Your task to perform on an android device: Go to Google Image 0: 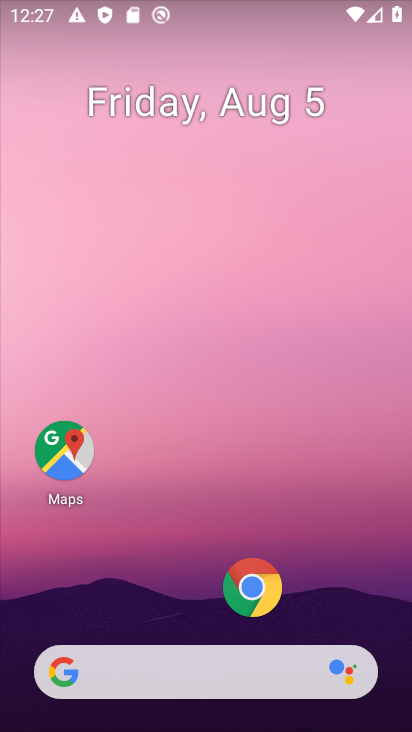
Step 0: drag from (203, 699) to (217, 114)
Your task to perform on an android device: Go to Google Image 1: 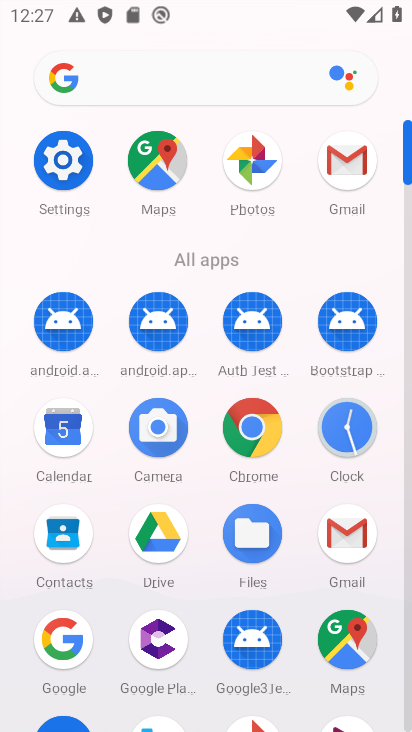
Step 1: click (74, 628)
Your task to perform on an android device: Go to Google Image 2: 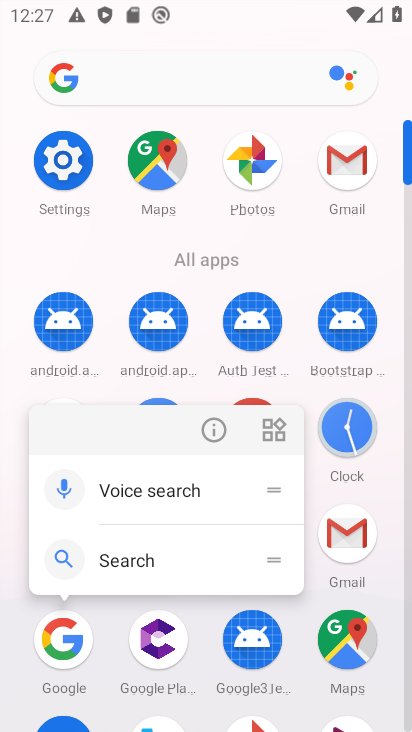
Step 2: click (72, 640)
Your task to perform on an android device: Go to Google Image 3: 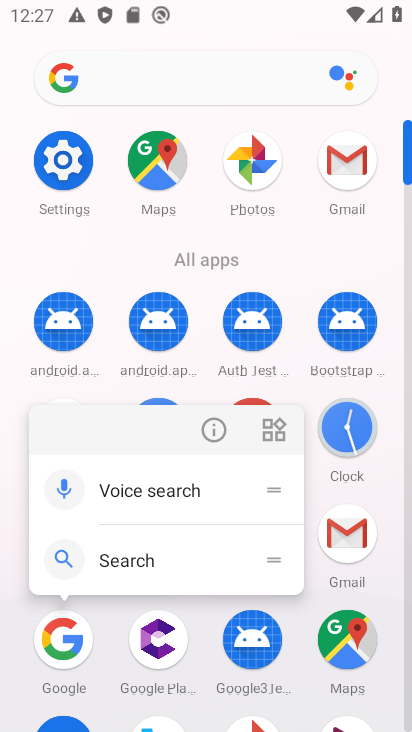
Step 3: click (72, 640)
Your task to perform on an android device: Go to Google Image 4: 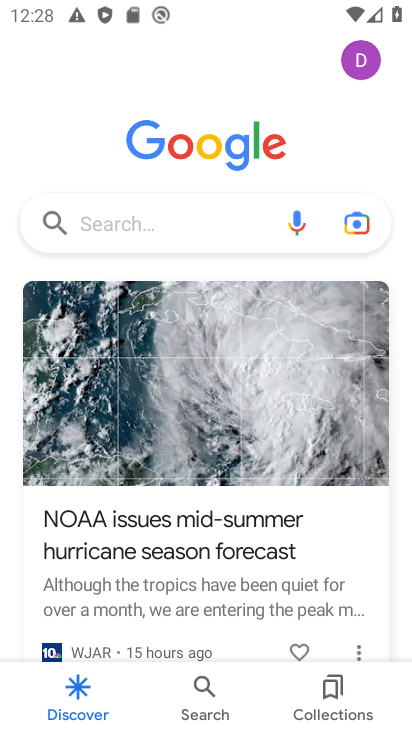
Step 4: task complete